Your task to perform on an android device: Open the phone app and click the voicemail tab. Image 0: 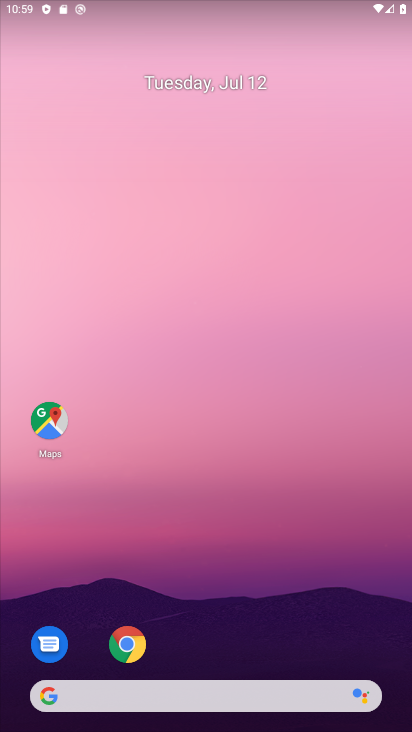
Step 0: drag from (266, 308) to (293, 133)
Your task to perform on an android device: Open the phone app and click the voicemail tab. Image 1: 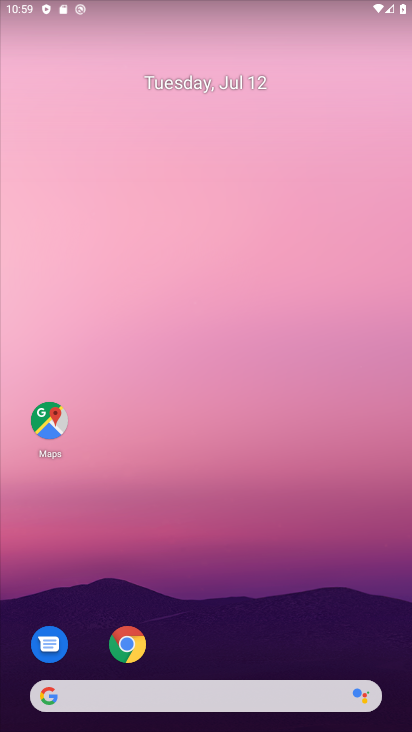
Step 1: drag from (215, 708) to (344, 192)
Your task to perform on an android device: Open the phone app and click the voicemail tab. Image 2: 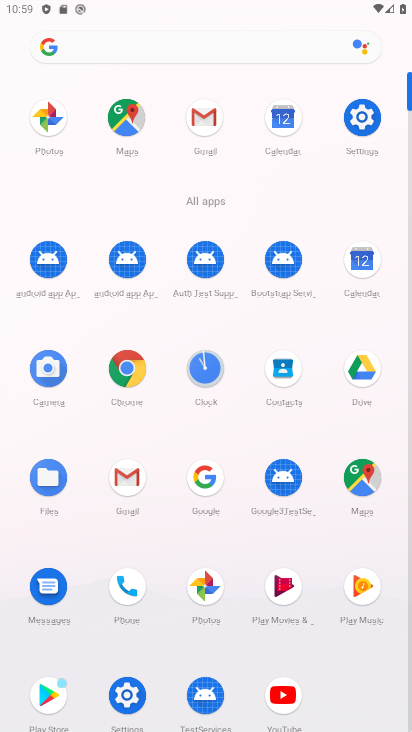
Step 2: click (123, 578)
Your task to perform on an android device: Open the phone app and click the voicemail tab. Image 3: 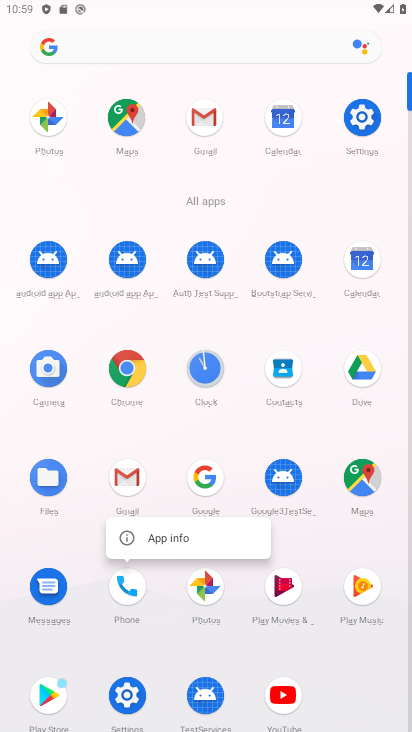
Step 3: click (122, 583)
Your task to perform on an android device: Open the phone app and click the voicemail tab. Image 4: 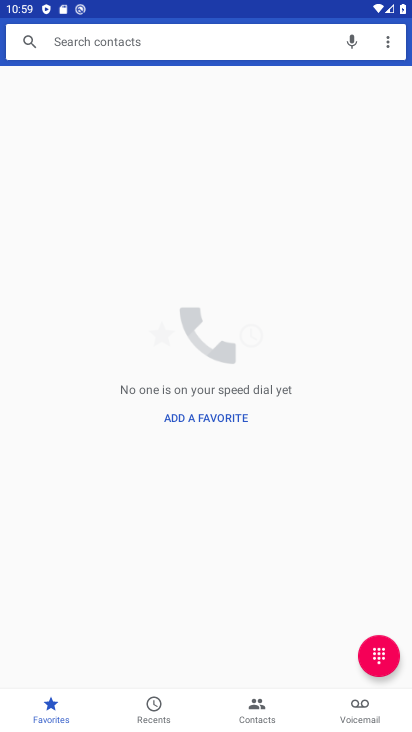
Step 4: click (359, 698)
Your task to perform on an android device: Open the phone app and click the voicemail tab. Image 5: 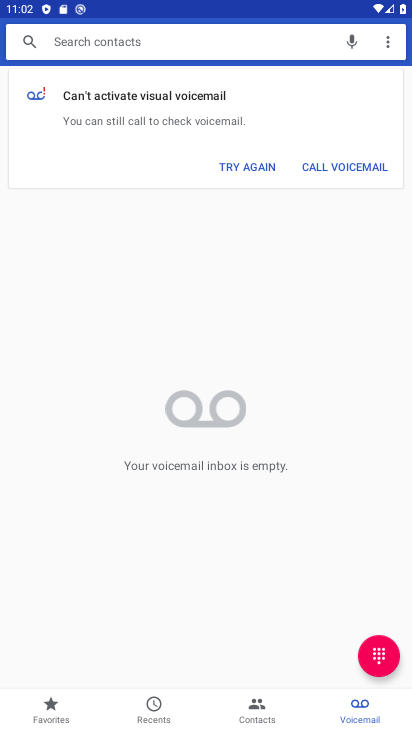
Step 5: task complete